Your task to perform on an android device: change the clock style Image 0: 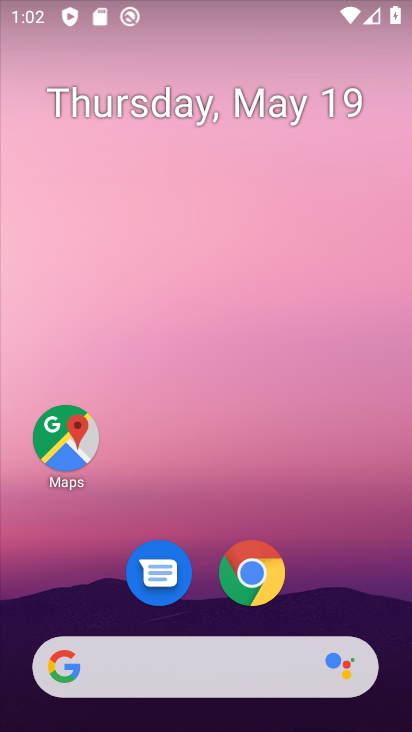
Step 0: drag from (282, 383) to (204, 7)
Your task to perform on an android device: change the clock style Image 1: 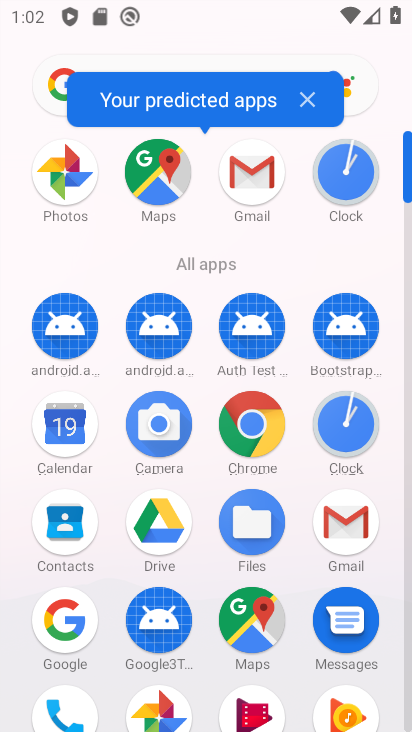
Step 1: drag from (18, 530) to (29, 203)
Your task to perform on an android device: change the clock style Image 2: 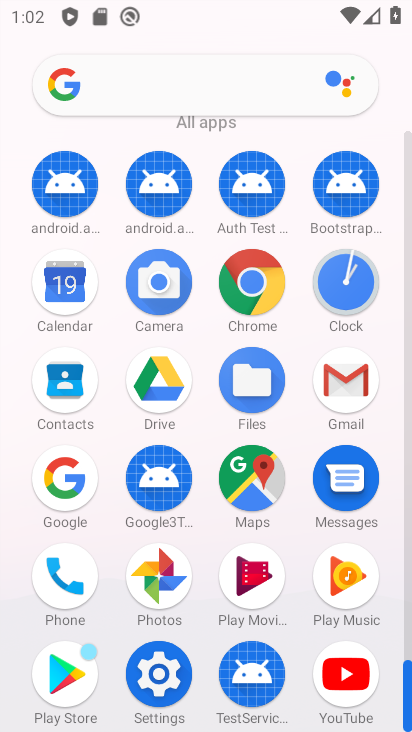
Step 2: click (346, 281)
Your task to perform on an android device: change the clock style Image 3: 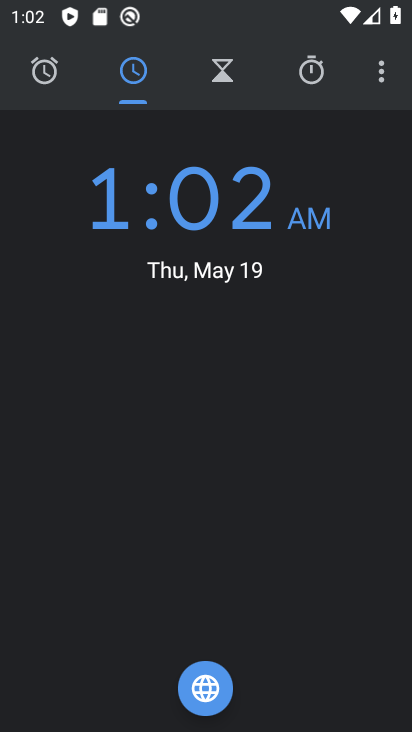
Step 3: drag from (379, 85) to (311, 140)
Your task to perform on an android device: change the clock style Image 4: 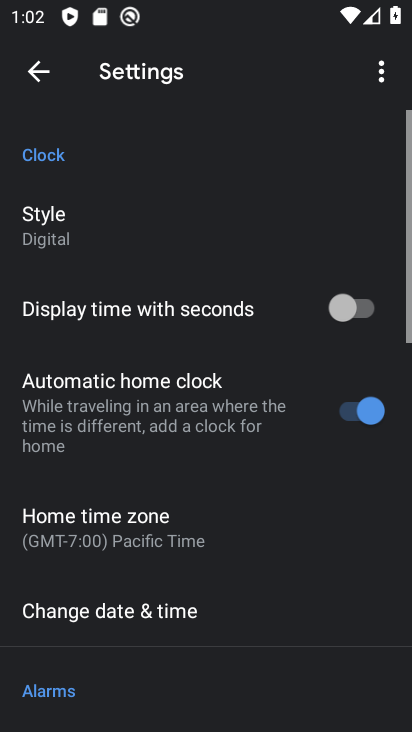
Step 4: click (126, 204)
Your task to perform on an android device: change the clock style Image 5: 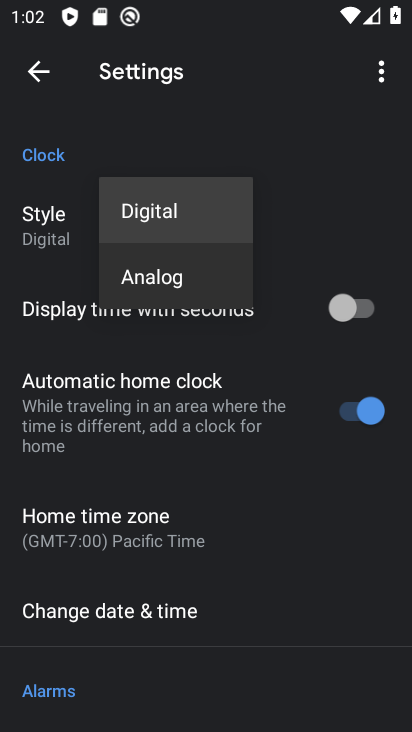
Step 5: click (172, 271)
Your task to perform on an android device: change the clock style Image 6: 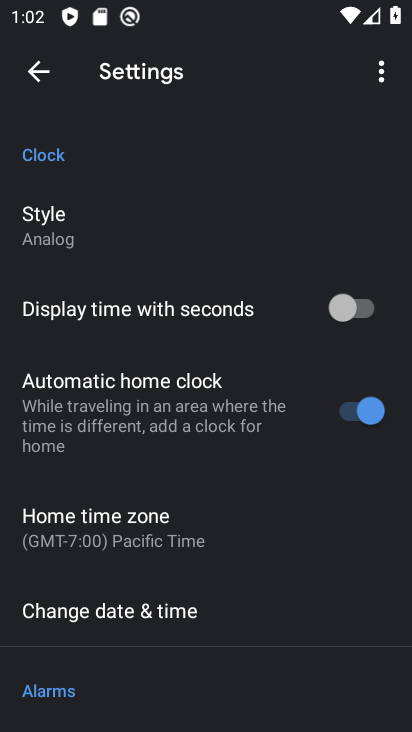
Step 6: task complete